Your task to perform on an android device: Empty the shopping cart on newegg. Add "bose soundsport free" to the cart on newegg, then select checkout. Image 0: 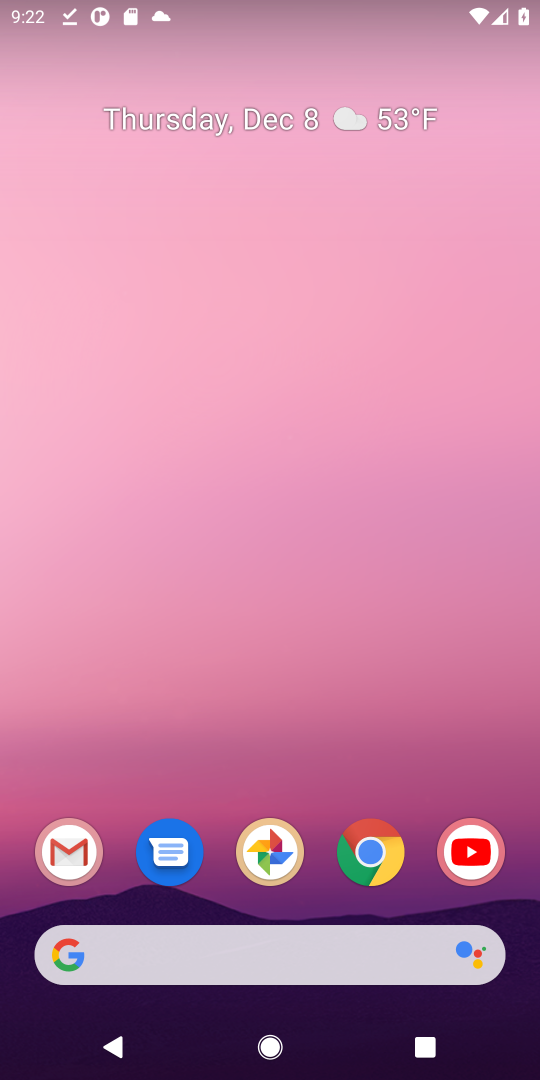
Step 0: click (320, 954)
Your task to perform on an android device: Empty the shopping cart on newegg. Add "bose soundsport free" to the cart on newegg, then select checkout. Image 1: 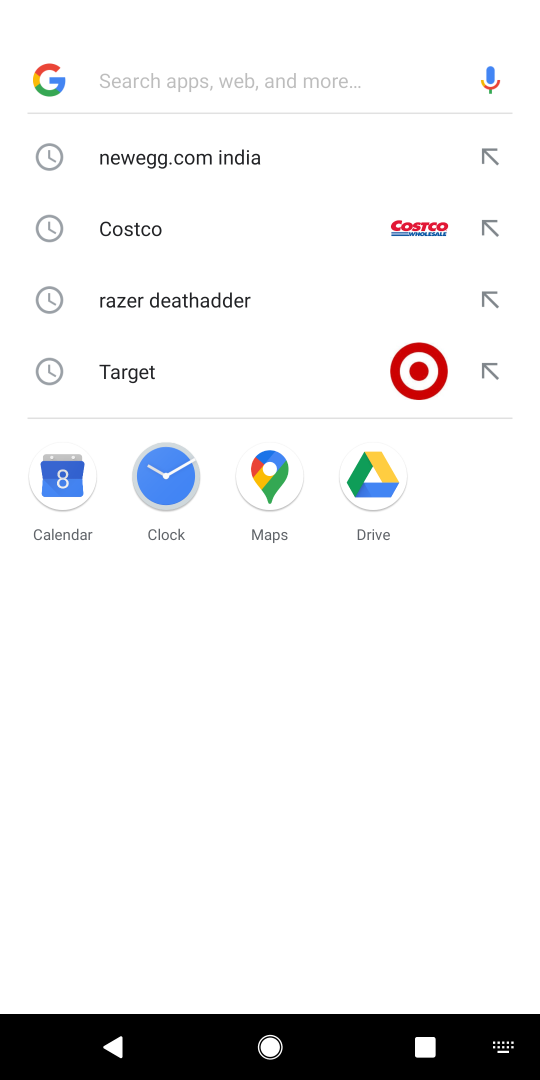
Step 1: type "newegg"
Your task to perform on an android device: Empty the shopping cart on newegg. Add "bose soundsport free" to the cart on newegg, then select checkout. Image 2: 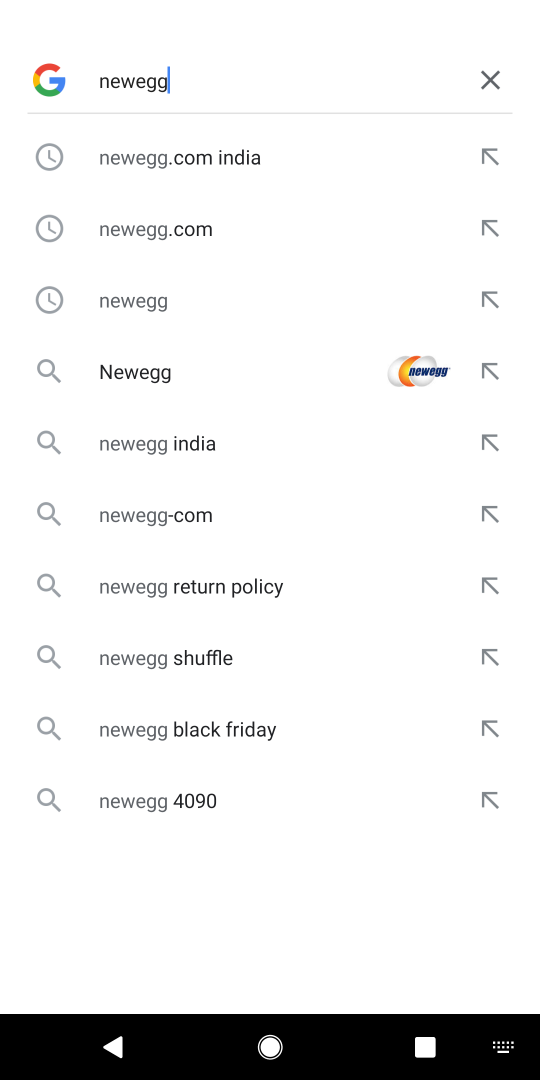
Step 2: click (228, 178)
Your task to perform on an android device: Empty the shopping cart on newegg. Add "bose soundsport free" to the cart on newegg, then select checkout. Image 3: 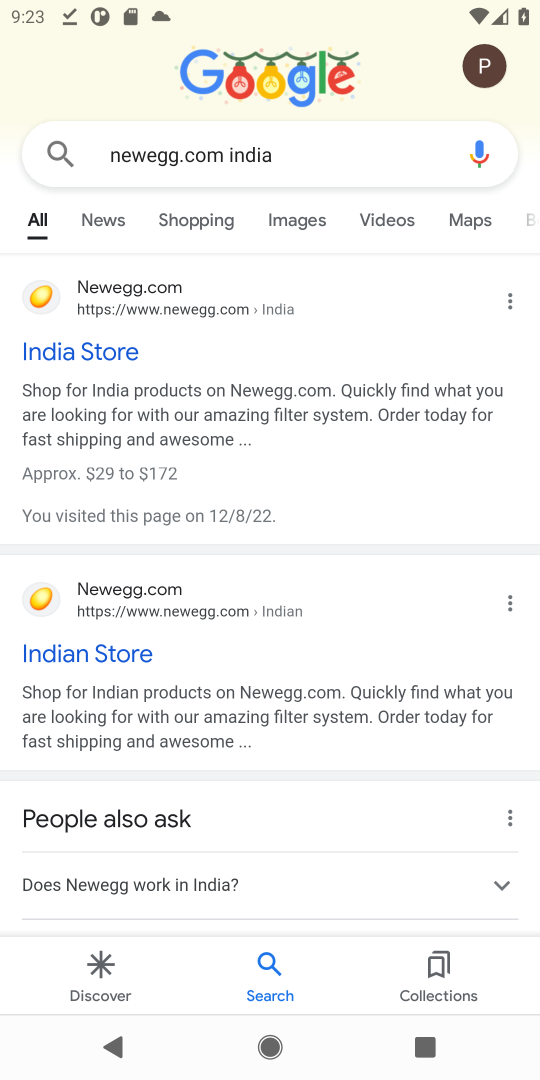
Step 3: click (142, 311)
Your task to perform on an android device: Empty the shopping cart on newegg. Add "bose soundsport free" to the cart on newegg, then select checkout. Image 4: 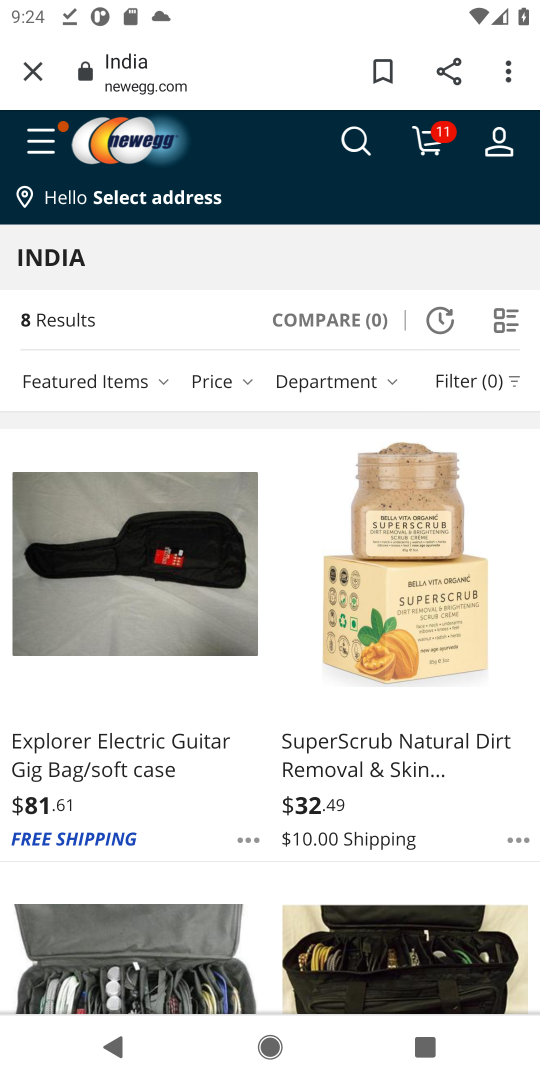
Step 4: task complete